Your task to perform on an android device: Open maps Image 0: 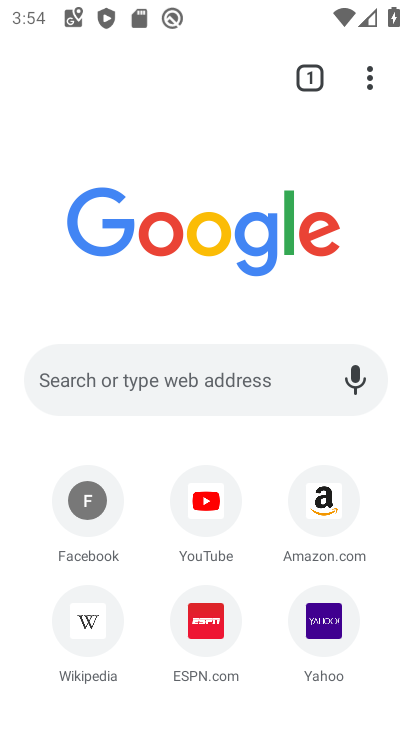
Step 0: press home button
Your task to perform on an android device: Open maps Image 1: 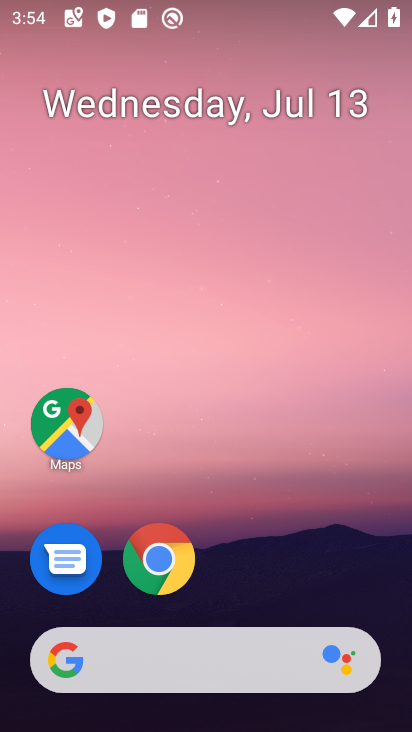
Step 1: click (77, 419)
Your task to perform on an android device: Open maps Image 2: 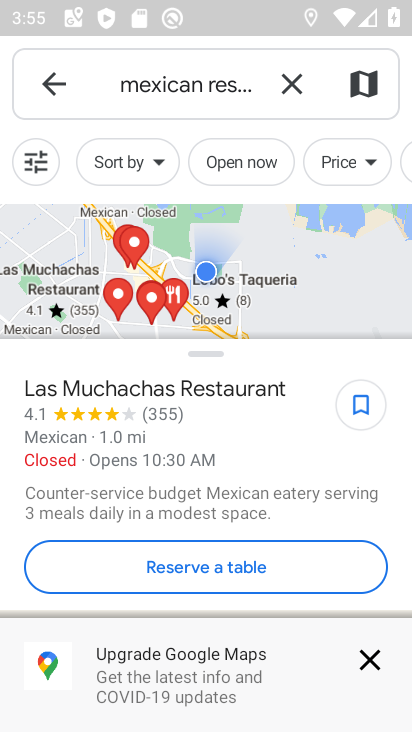
Step 2: task complete